Your task to perform on an android device: toggle sleep mode Image 0: 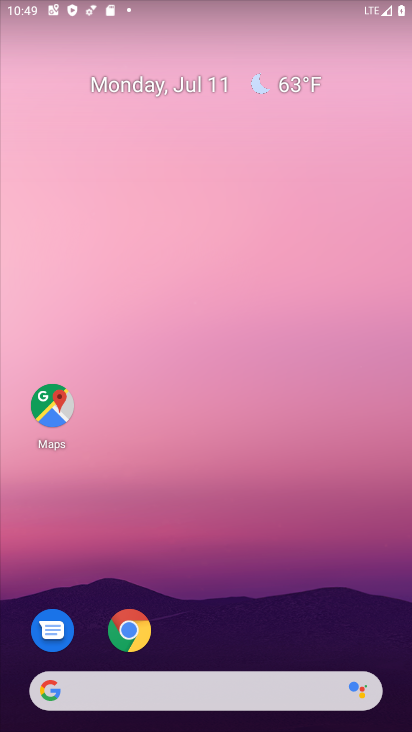
Step 0: drag from (348, 632) to (352, 174)
Your task to perform on an android device: toggle sleep mode Image 1: 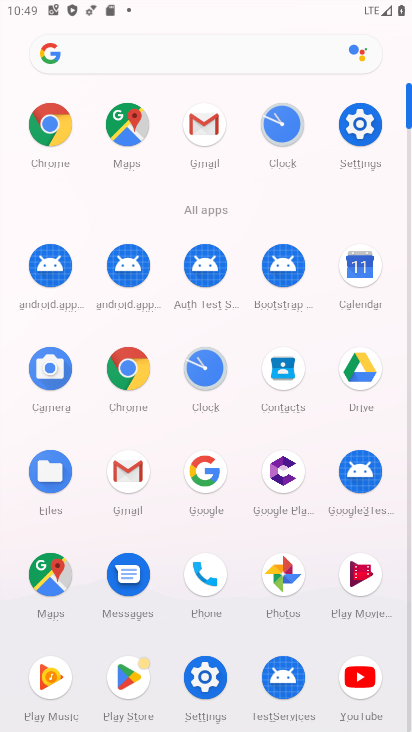
Step 1: click (204, 679)
Your task to perform on an android device: toggle sleep mode Image 2: 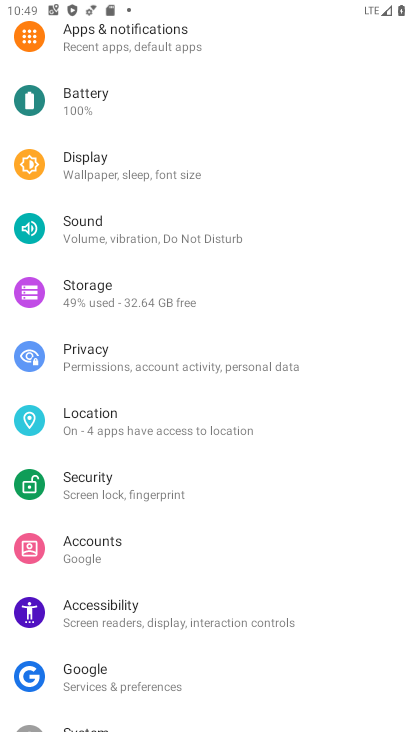
Step 2: click (117, 162)
Your task to perform on an android device: toggle sleep mode Image 3: 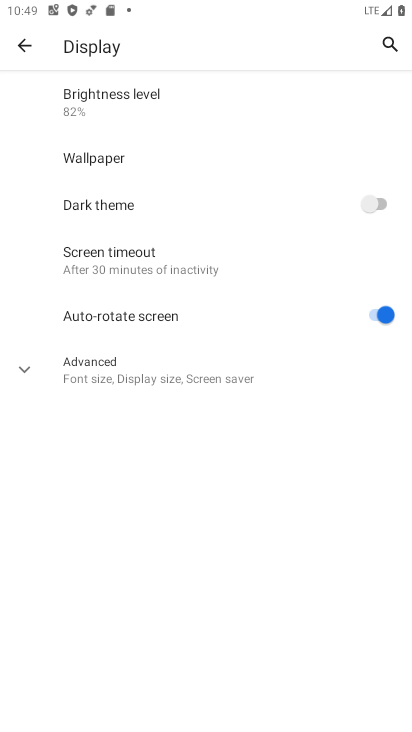
Step 3: click (25, 371)
Your task to perform on an android device: toggle sleep mode Image 4: 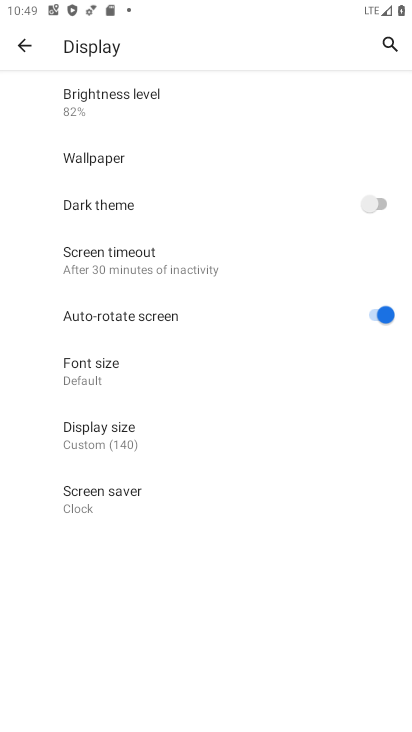
Step 4: task complete